Your task to perform on an android device: turn on airplane mode Image 0: 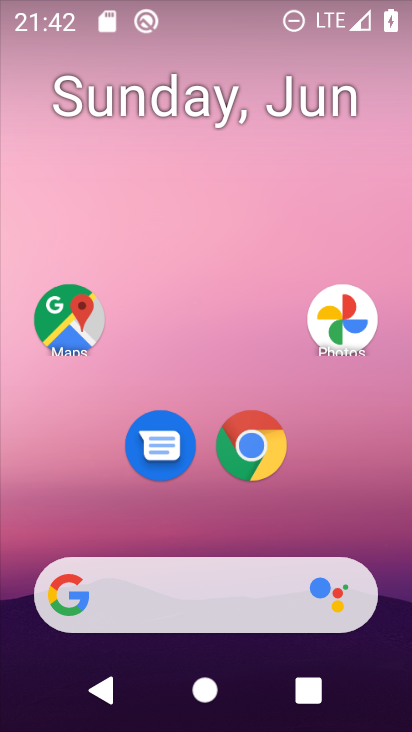
Step 0: press home button
Your task to perform on an android device: turn on airplane mode Image 1: 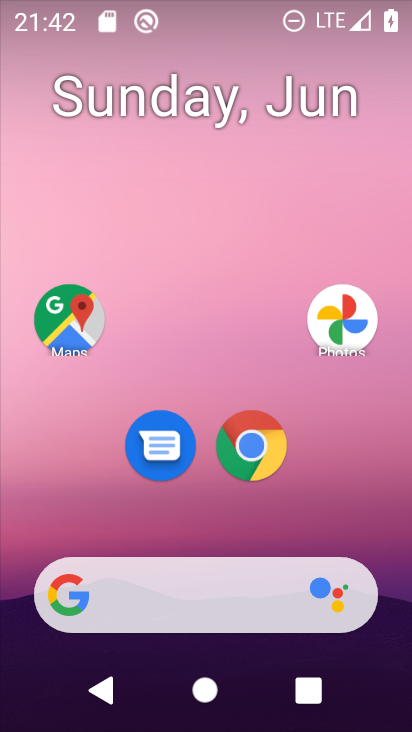
Step 1: drag from (203, 11) to (213, 212)
Your task to perform on an android device: turn on airplane mode Image 2: 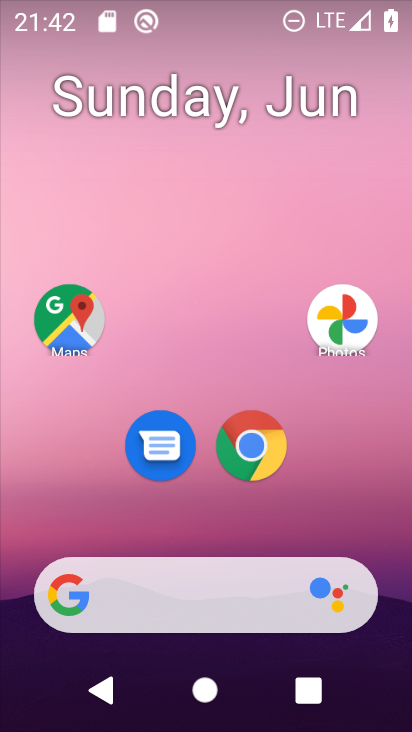
Step 2: drag from (225, 27) to (216, 258)
Your task to perform on an android device: turn on airplane mode Image 3: 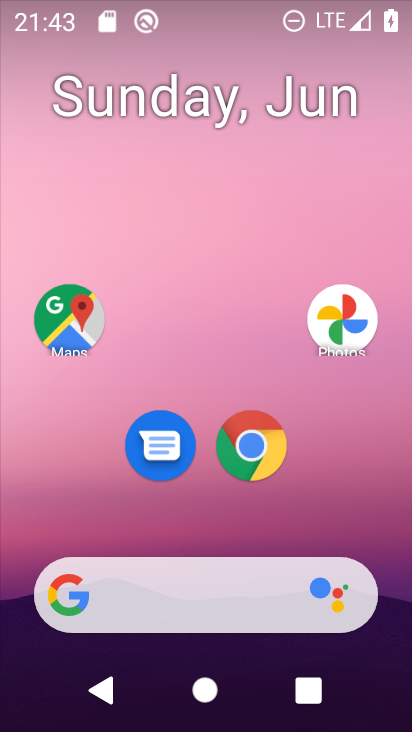
Step 3: drag from (207, 6) to (213, 516)
Your task to perform on an android device: turn on airplane mode Image 4: 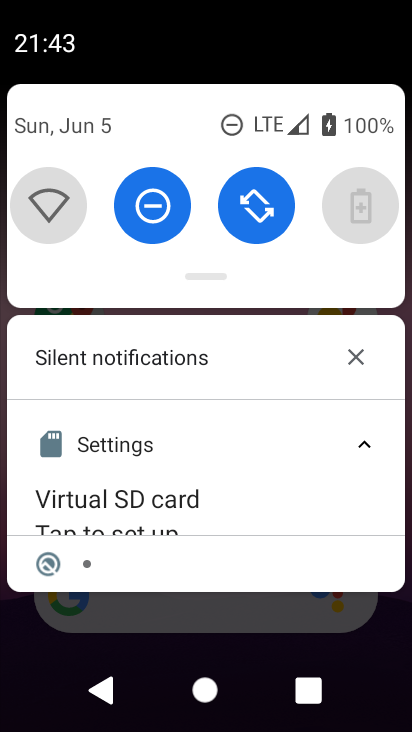
Step 4: drag from (210, 286) to (209, 546)
Your task to perform on an android device: turn on airplane mode Image 5: 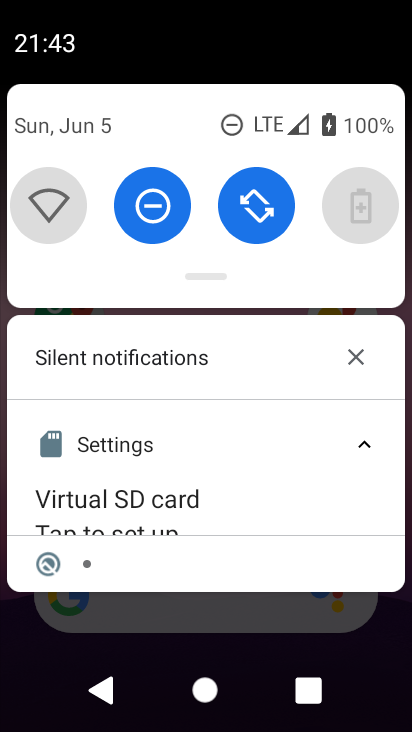
Step 5: drag from (205, 303) to (191, 553)
Your task to perform on an android device: turn on airplane mode Image 6: 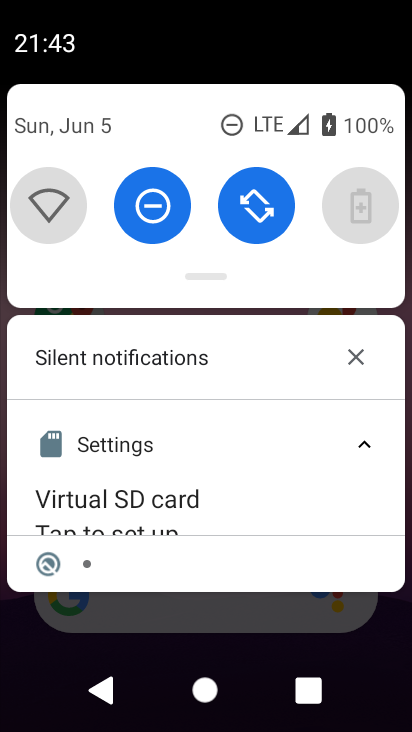
Step 6: drag from (196, 270) to (230, 637)
Your task to perform on an android device: turn on airplane mode Image 7: 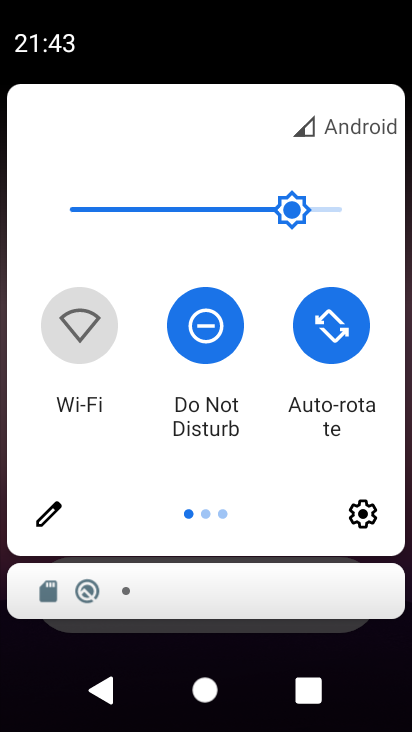
Step 7: drag from (292, 270) to (3, 365)
Your task to perform on an android device: turn on airplane mode Image 8: 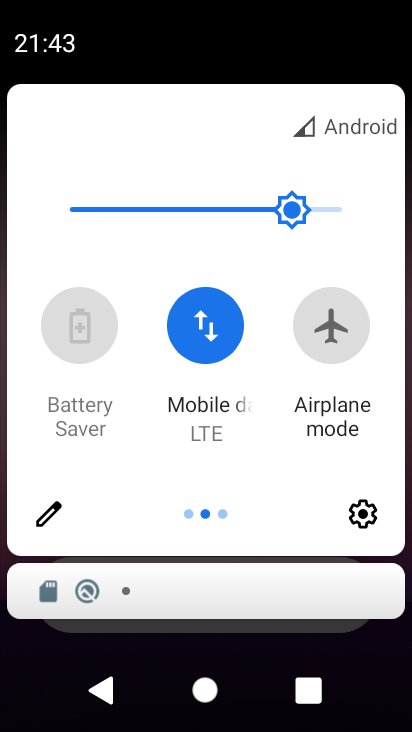
Step 8: click (333, 334)
Your task to perform on an android device: turn on airplane mode Image 9: 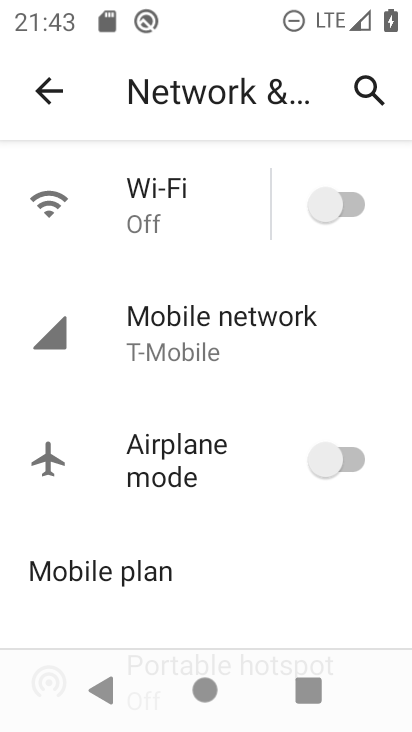
Step 9: click (323, 464)
Your task to perform on an android device: turn on airplane mode Image 10: 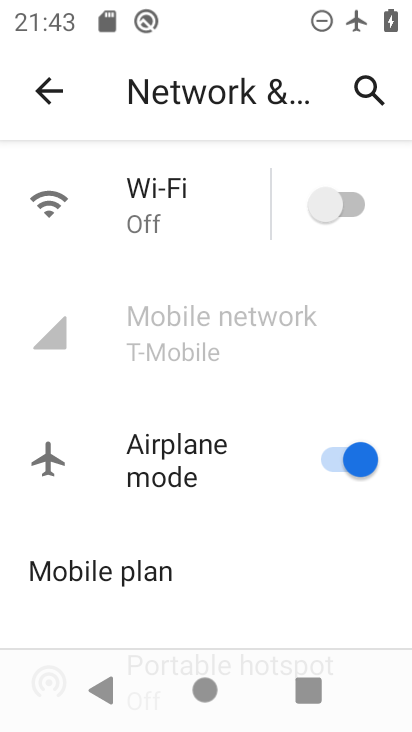
Step 10: task complete